Your task to perform on an android device: When is my next appointment? Image 0: 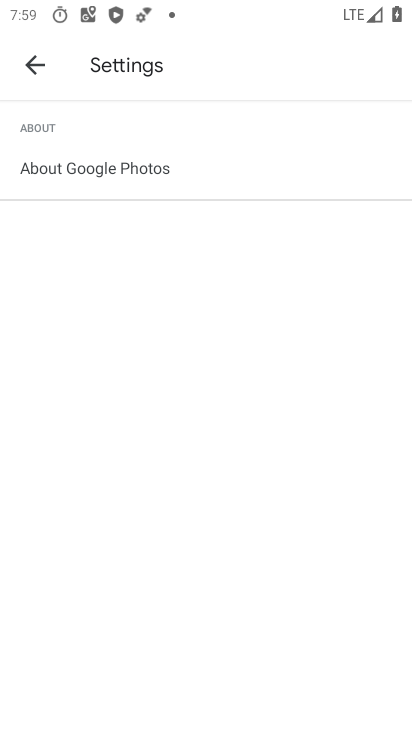
Step 0: press home button
Your task to perform on an android device: When is my next appointment? Image 1: 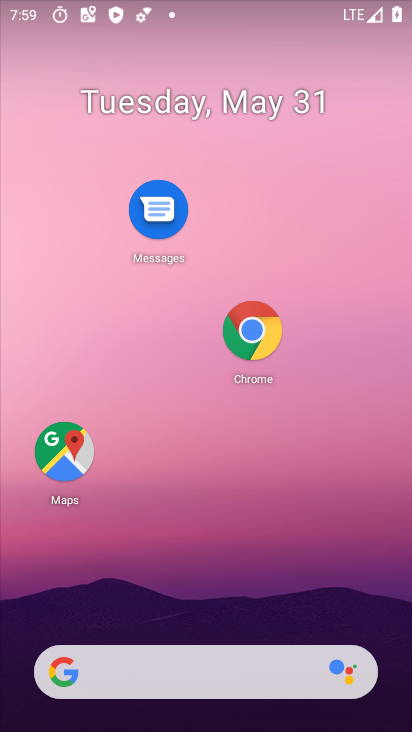
Step 1: drag from (214, 612) to (202, 100)
Your task to perform on an android device: When is my next appointment? Image 2: 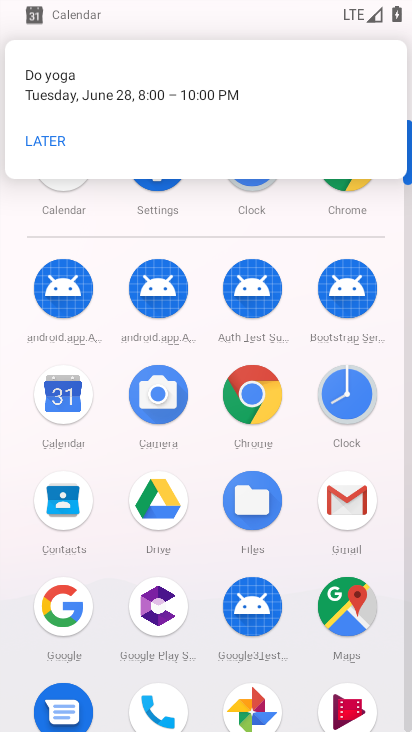
Step 2: click (30, 141)
Your task to perform on an android device: When is my next appointment? Image 3: 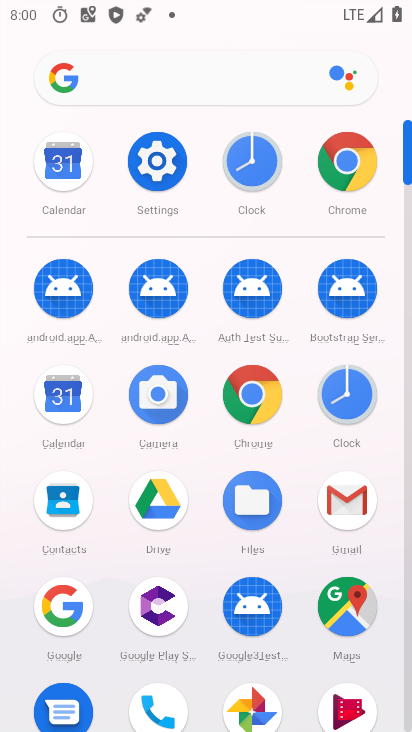
Step 3: click (66, 431)
Your task to perform on an android device: When is my next appointment? Image 4: 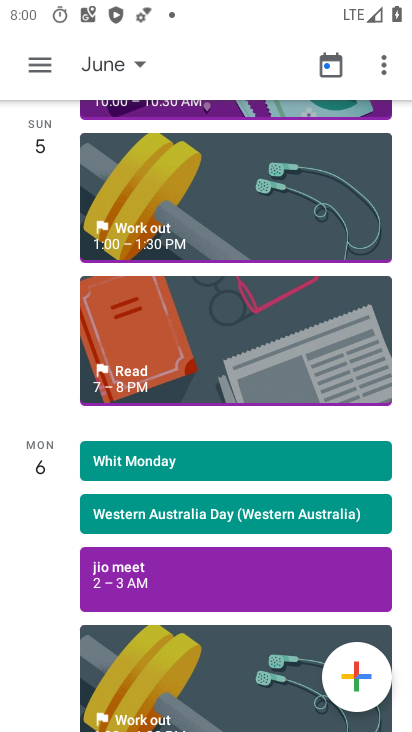
Step 4: task complete